Your task to perform on an android device: Search for flights from Barcelona to Mexico city Image 0: 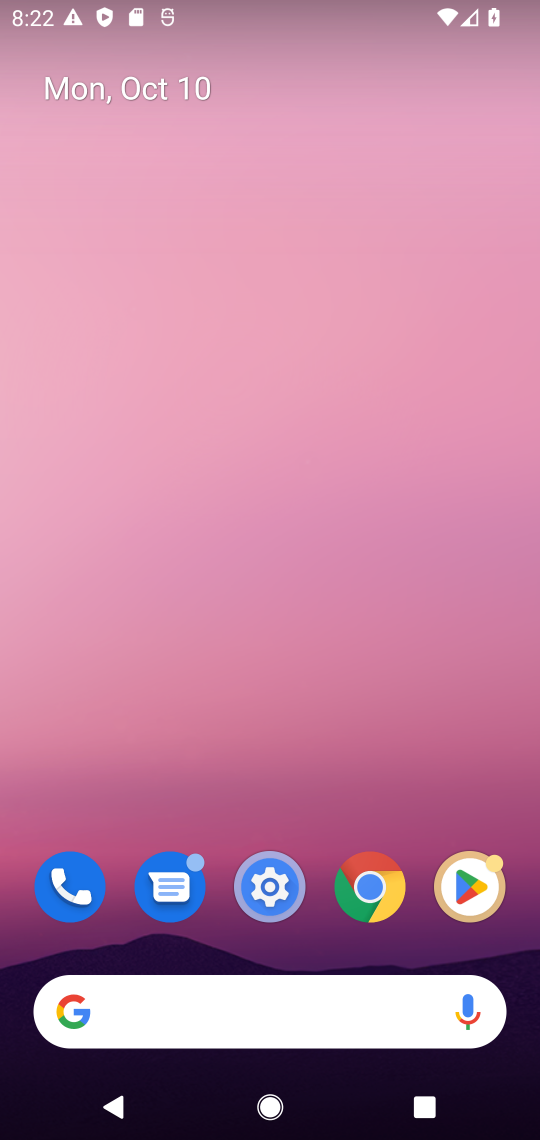
Step 0: click (357, 901)
Your task to perform on an android device: Search for flights from Barcelona to Mexico city Image 1: 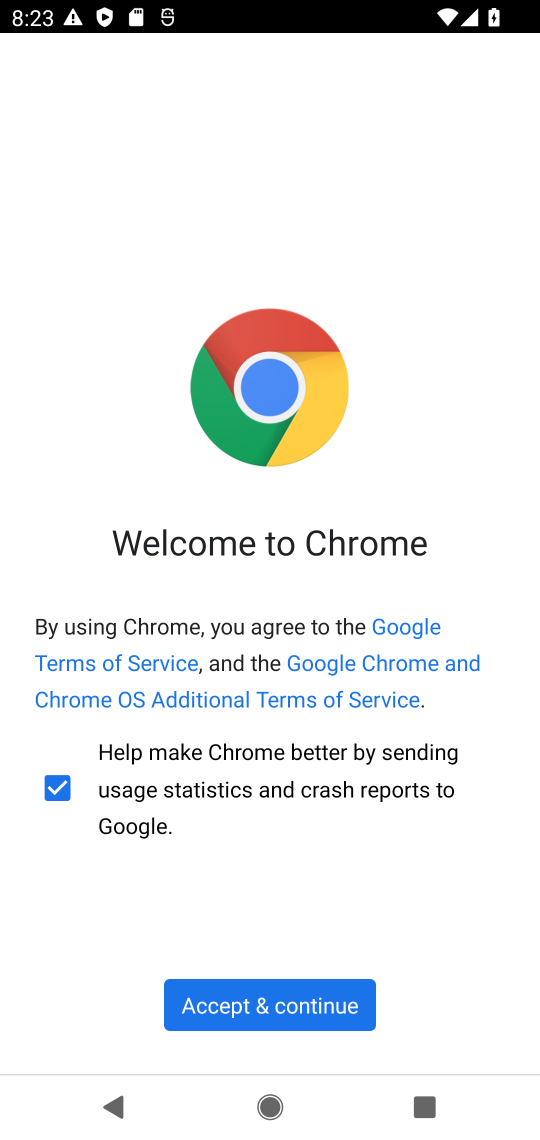
Step 1: click (292, 1004)
Your task to perform on an android device: Search for flights from Barcelona to Mexico city Image 2: 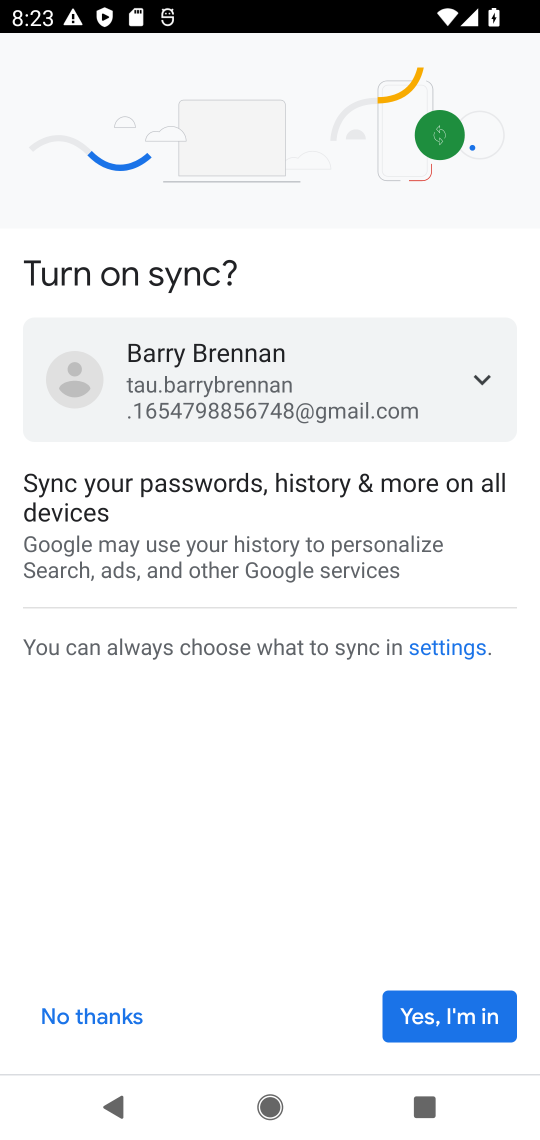
Step 2: click (428, 1003)
Your task to perform on an android device: Search for flights from Barcelona to Mexico city Image 3: 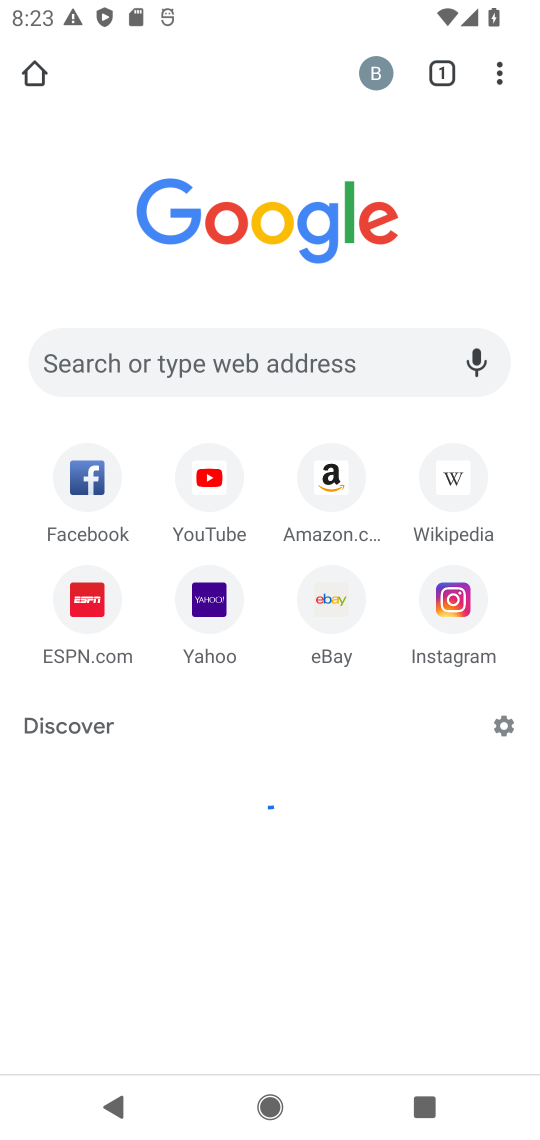
Step 3: click (238, 366)
Your task to perform on an android device: Search for flights from Barcelona to Mexico city Image 4: 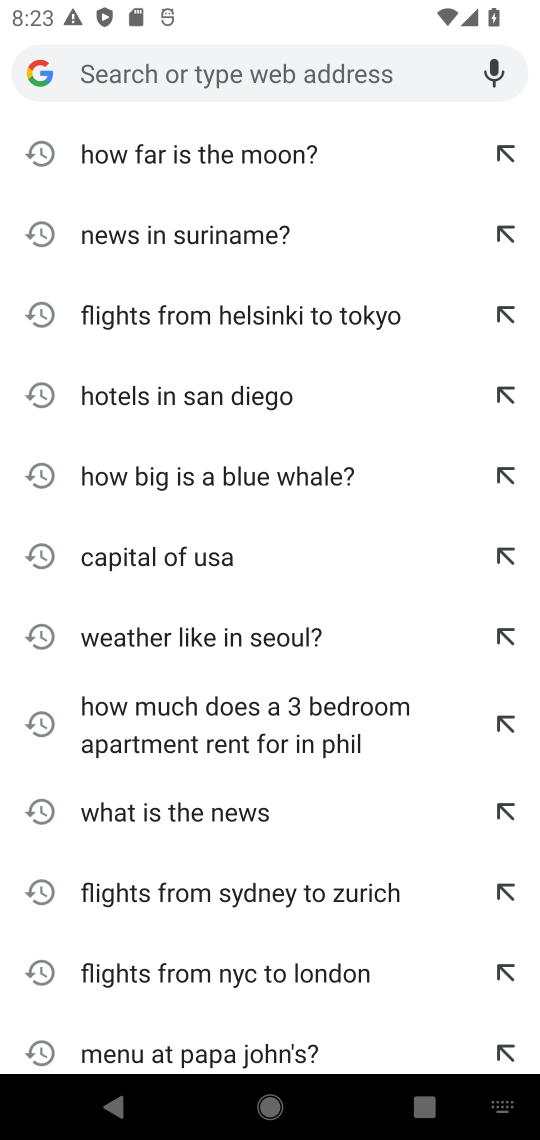
Step 4: type "barcelona to mexico city flights"
Your task to perform on an android device: Search for flights from Barcelona to Mexico city Image 5: 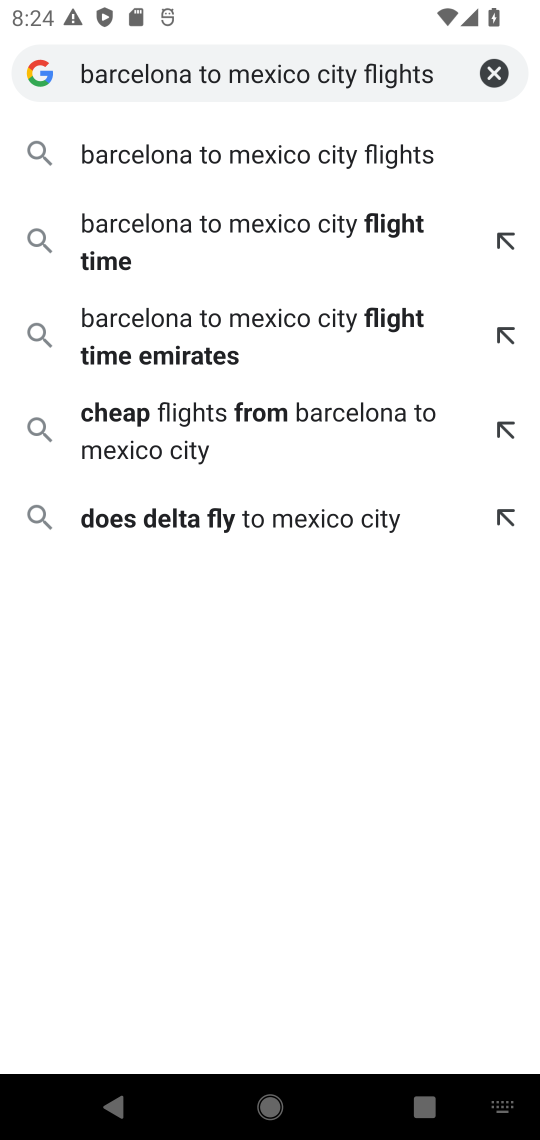
Step 5: click (261, 152)
Your task to perform on an android device: Search for flights from Barcelona to Mexico city Image 6: 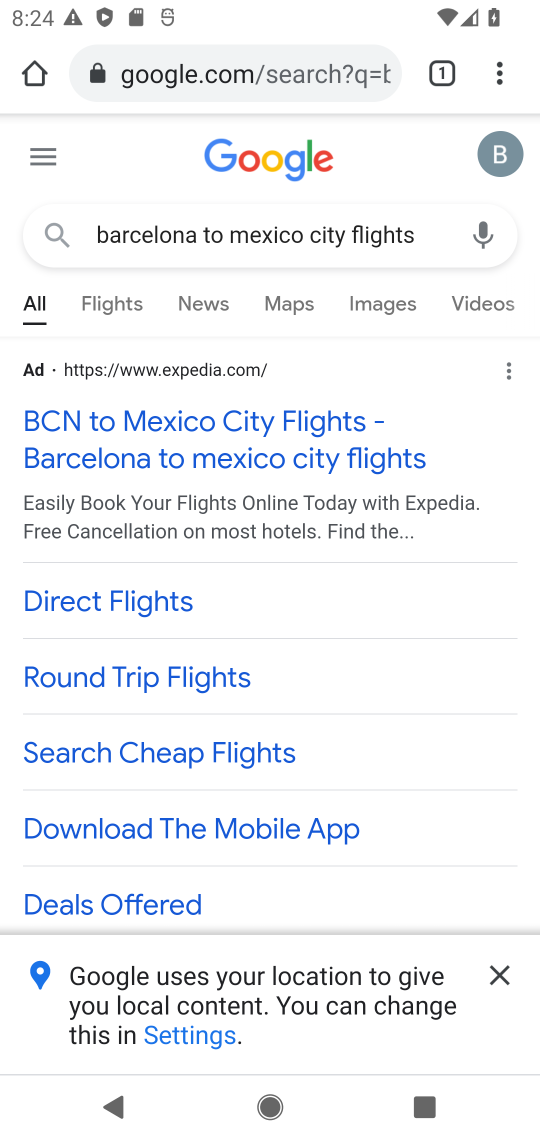
Step 6: task complete